Your task to perform on an android device: change alarm snooze length Image 0: 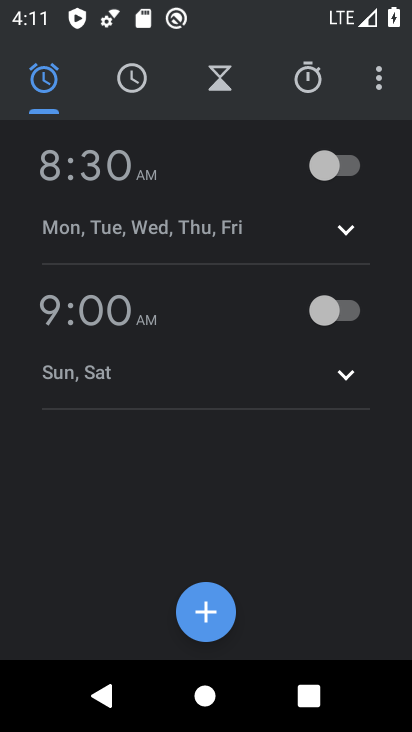
Step 0: click (376, 90)
Your task to perform on an android device: change alarm snooze length Image 1: 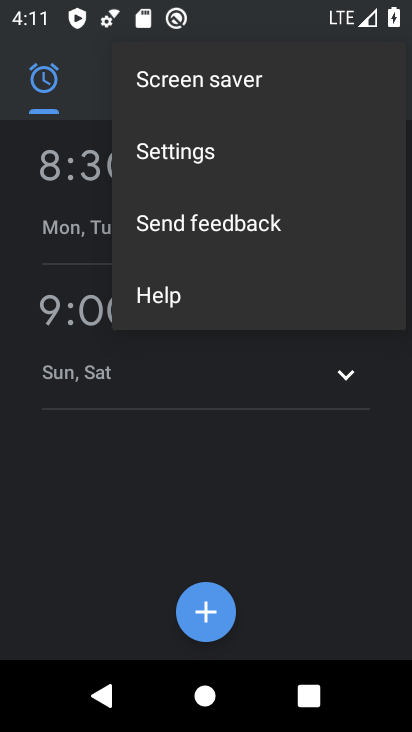
Step 1: click (171, 153)
Your task to perform on an android device: change alarm snooze length Image 2: 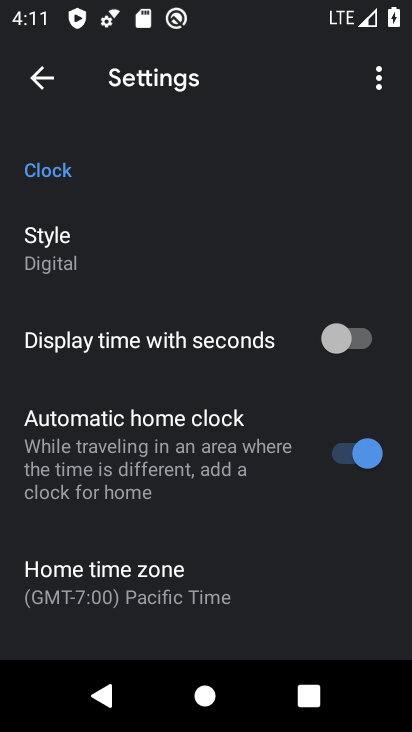
Step 2: drag from (262, 559) to (270, 129)
Your task to perform on an android device: change alarm snooze length Image 3: 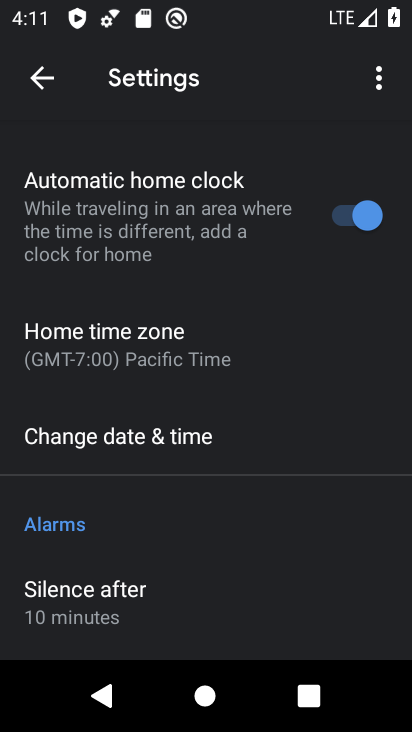
Step 3: drag from (228, 616) to (185, 99)
Your task to perform on an android device: change alarm snooze length Image 4: 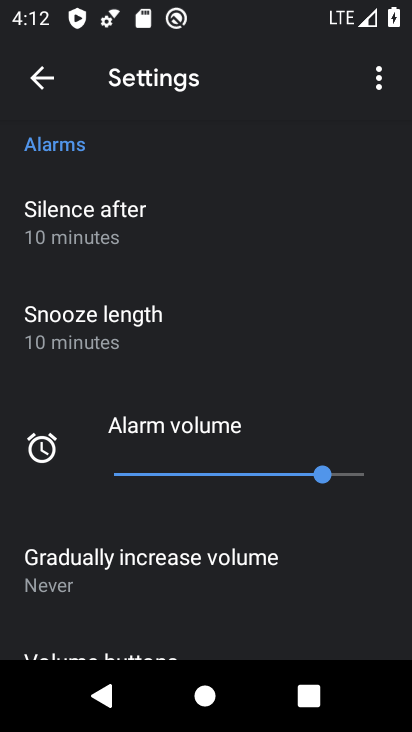
Step 4: click (69, 318)
Your task to perform on an android device: change alarm snooze length Image 5: 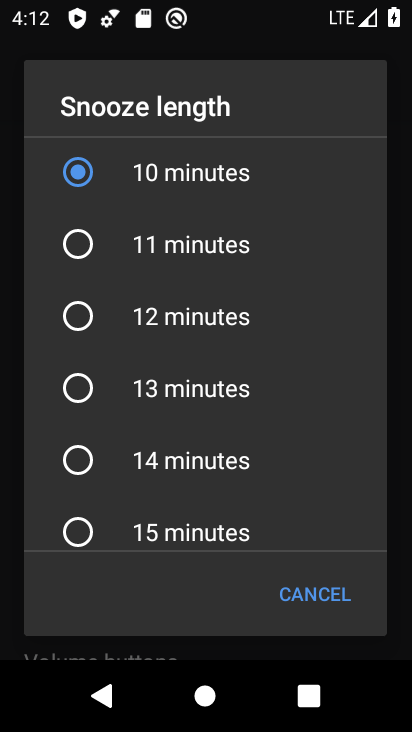
Step 5: click (87, 530)
Your task to perform on an android device: change alarm snooze length Image 6: 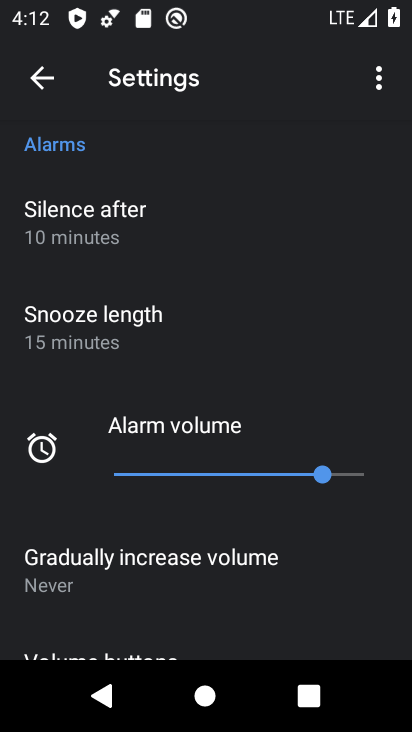
Step 6: task complete